Your task to perform on an android device: Open Android settings Image 0: 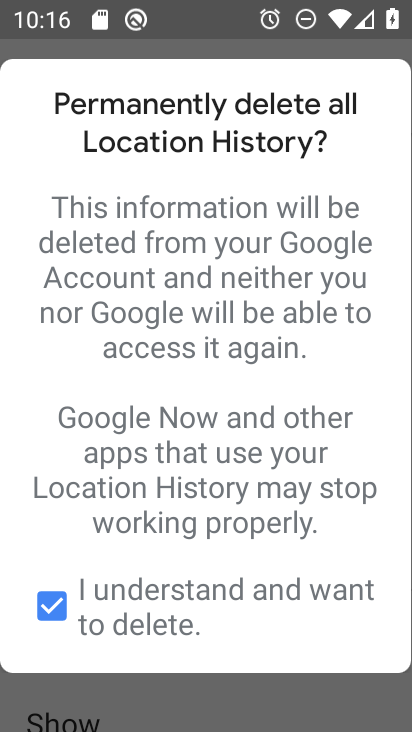
Step 0: press home button
Your task to perform on an android device: Open Android settings Image 1: 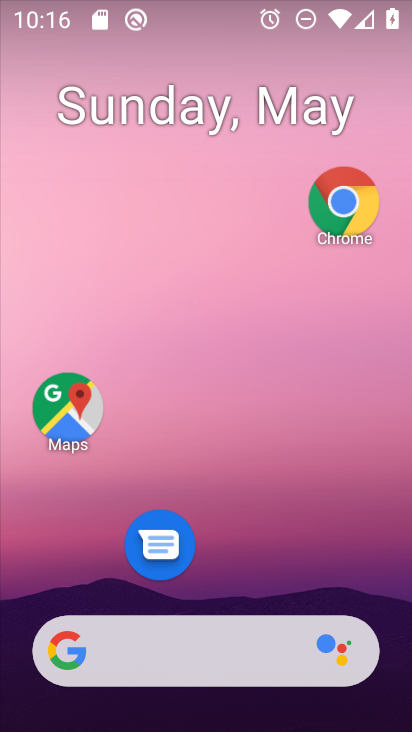
Step 1: drag from (250, 577) to (271, 42)
Your task to perform on an android device: Open Android settings Image 2: 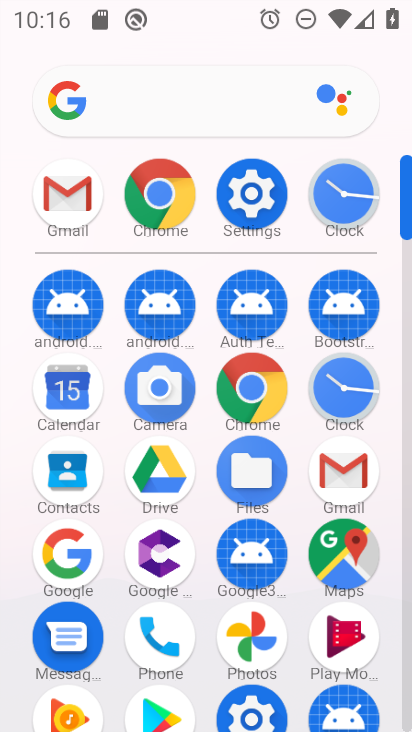
Step 2: click (241, 190)
Your task to perform on an android device: Open Android settings Image 3: 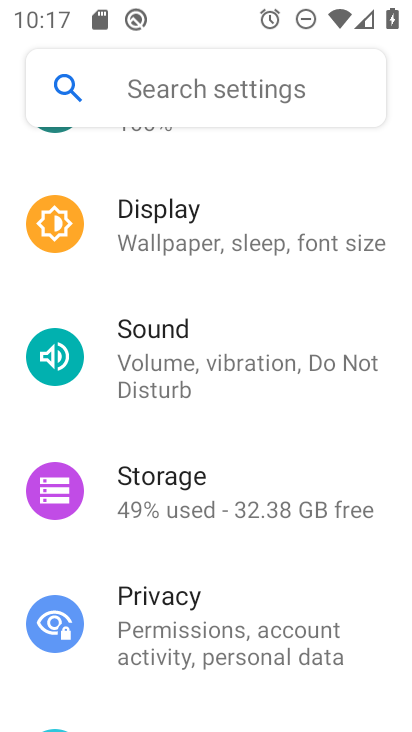
Step 3: drag from (227, 556) to (214, 357)
Your task to perform on an android device: Open Android settings Image 4: 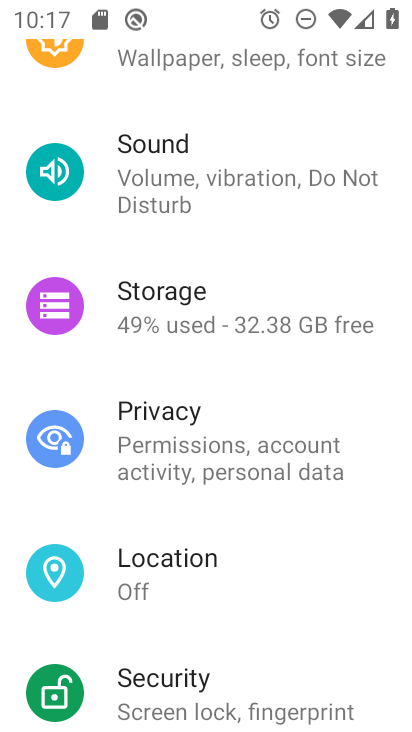
Step 4: drag from (225, 595) to (247, 235)
Your task to perform on an android device: Open Android settings Image 5: 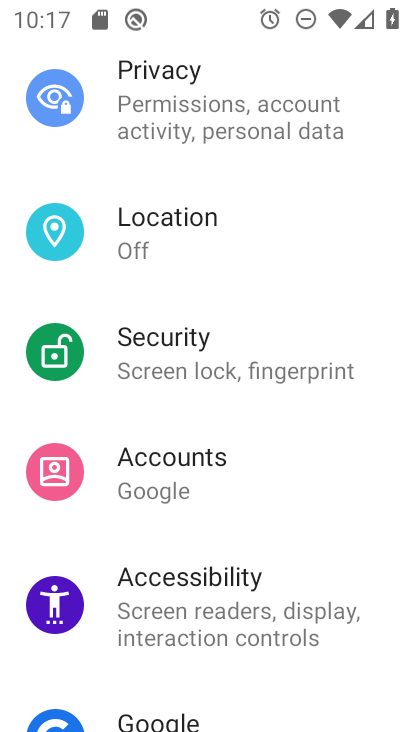
Step 5: drag from (198, 584) to (216, 218)
Your task to perform on an android device: Open Android settings Image 6: 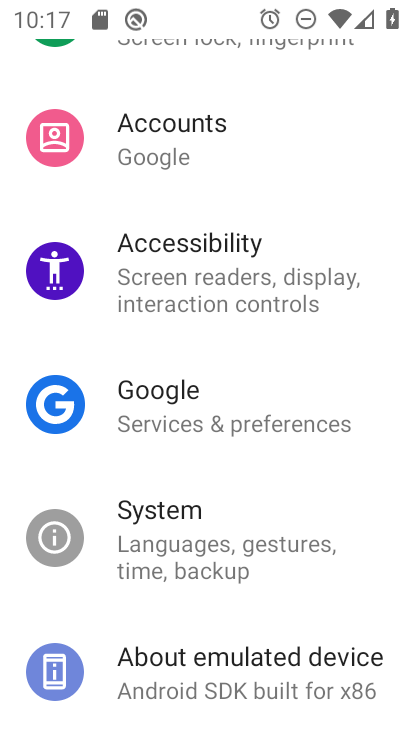
Step 6: drag from (173, 607) to (211, 389)
Your task to perform on an android device: Open Android settings Image 7: 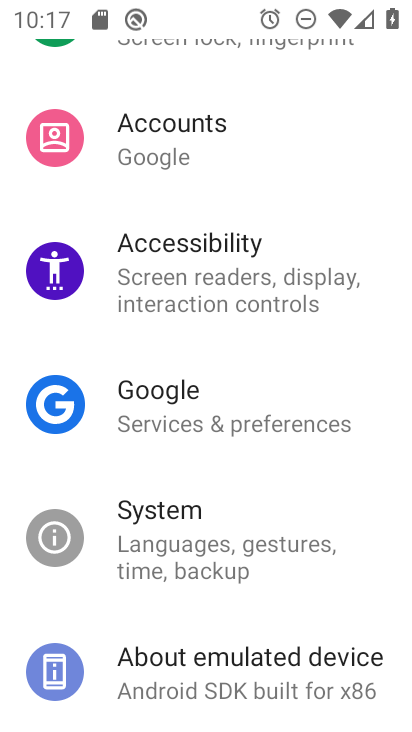
Step 7: click (196, 536)
Your task to perform on an android device: Open Android settings Image 8: 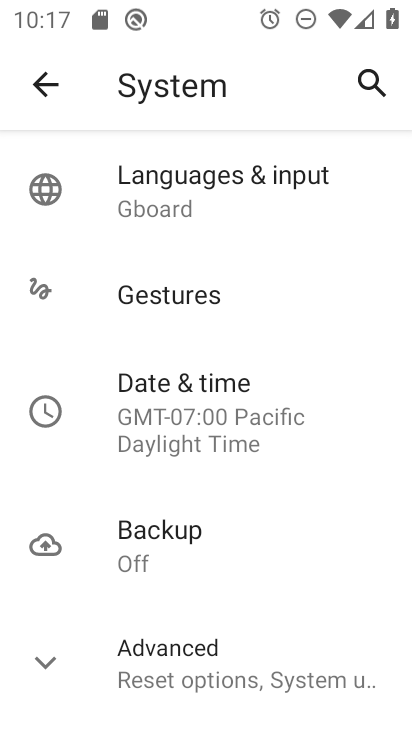
Step 8: task complete